Your task to perform on an android device: empty trash in google photos Image 0: 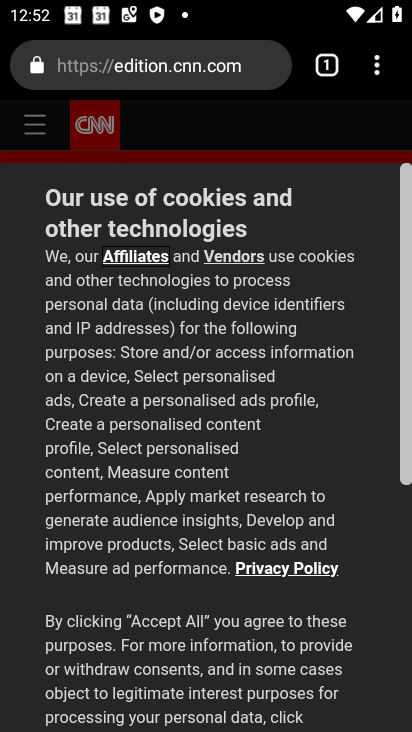
Step 0: drag from (272, 701) to (348, 279)
Your task to perform on an android device: empty trash in google photos Image 1: 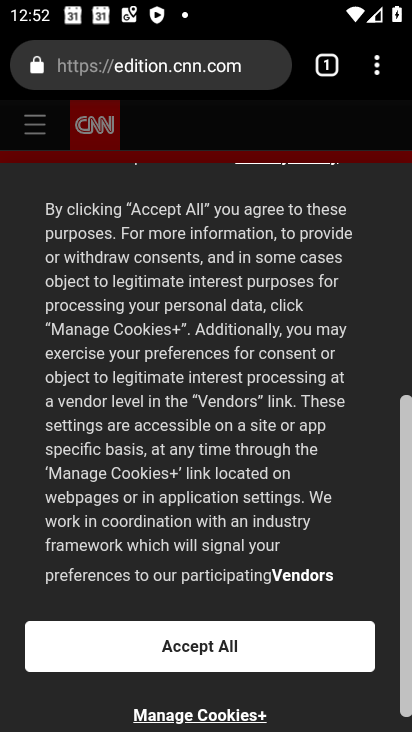
Step 1: press home button
Your task to perform on an android device: empty trash in google photos Image 2: 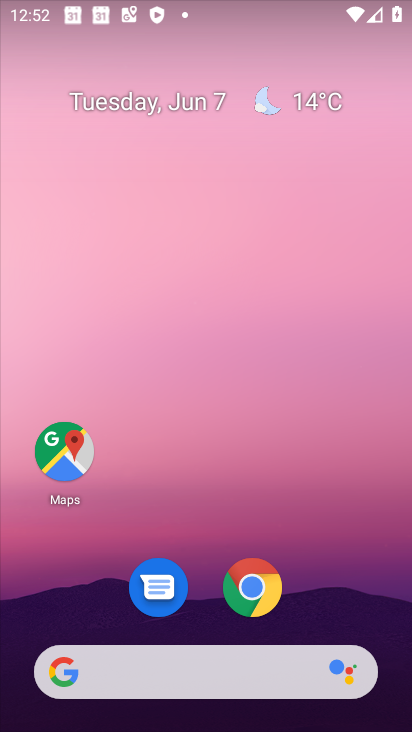
Step 2: drag from (247, 667) to (234, 149)
Your task to perform on an android device: empty trash in google photos Image 3: 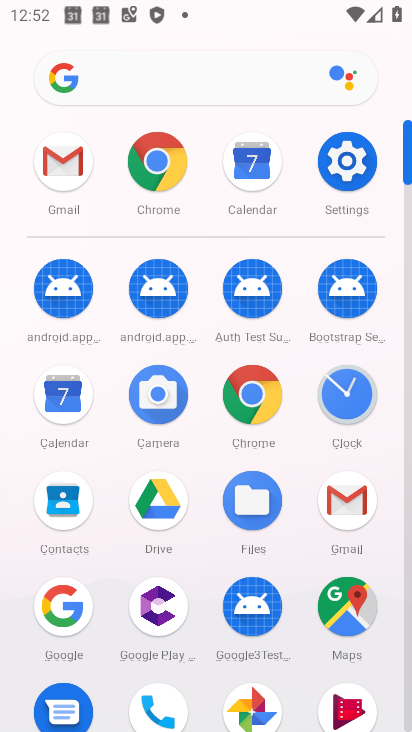
Step 3: click (280, 692)
Your task to perform on an android device: empty trash in google photos Image 4: 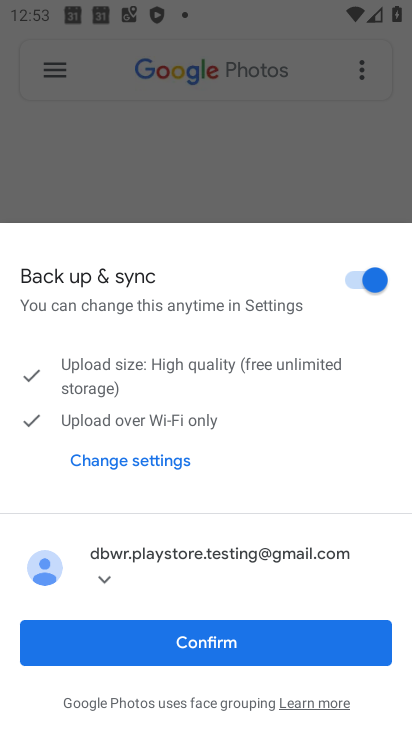
Step 4: click (163, 631)
Your task to perform on an android device: empty trash in google photos Image 5: 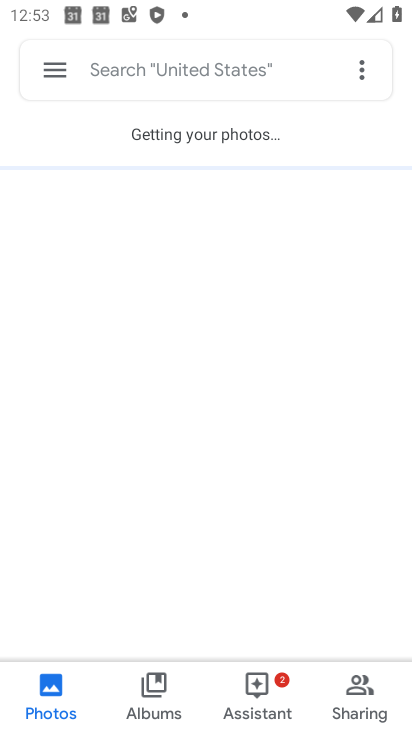
Step 5: click (53, 67)
Your task to perform on an android device: empty trash in google photos Image 6: 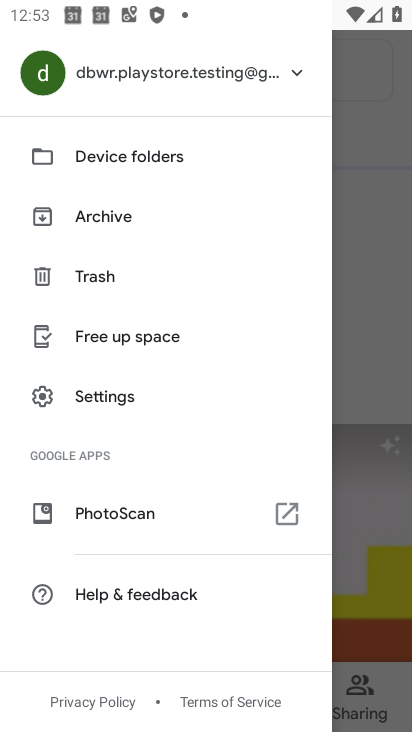
Step 6: click (75, 277)
Your task to perform on an android device: empty trash in google photos Image 7: 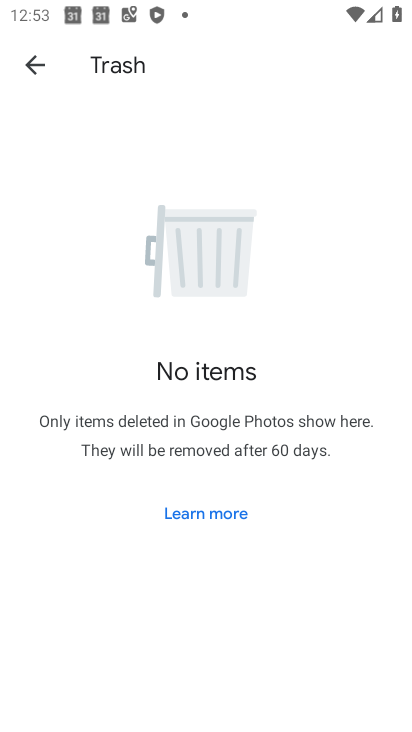
Step 7: task complete